Your task to perform on an android device: set an alarm Image 0: 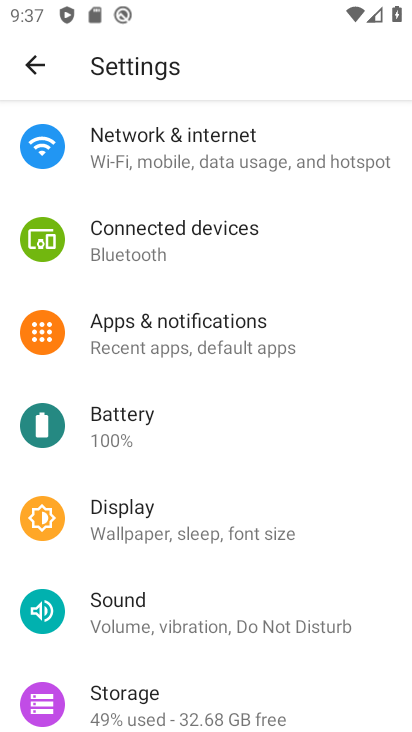
Step 0: press home button
Your task to perform on an android device: set an alarm Image 1: 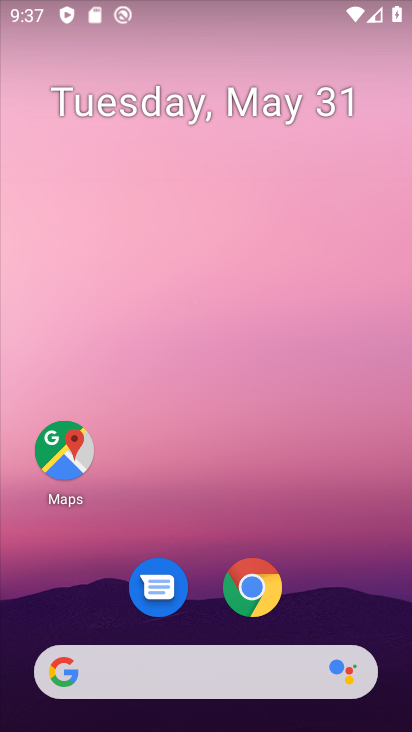
Step 1: drag from (382, 587) to (381, 285)
Your task to perform on an android device: set an alarm Image 2: 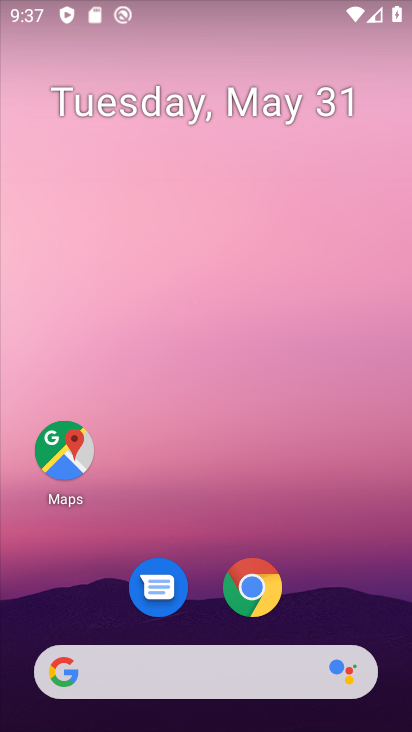
Step 2: drag from (386, 590) to (389, 223)
Your task to perform on an android device: set an alarm Image 3: 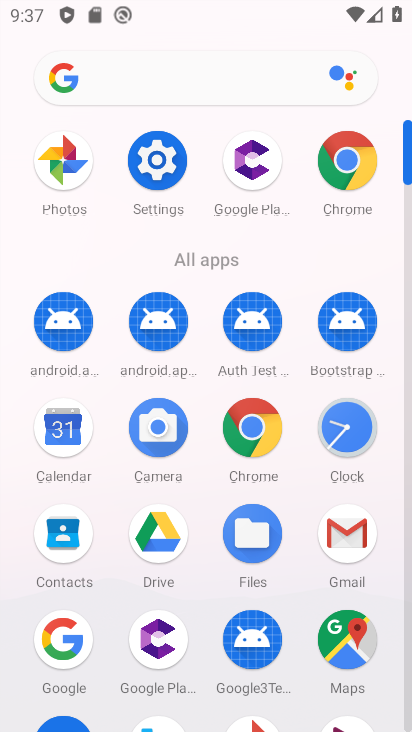
Step 3: click (358, 441)
Your task to perform on an android device: set an alarm Image 4: 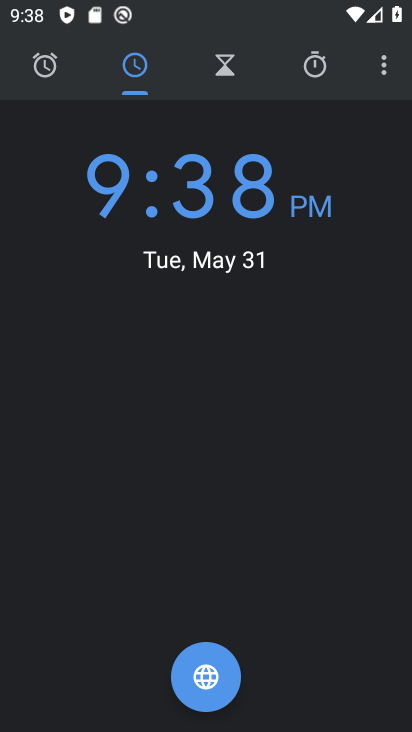
Step 4: click (52, 80)
Your task to perform on an android device: set an alarm Image 5: 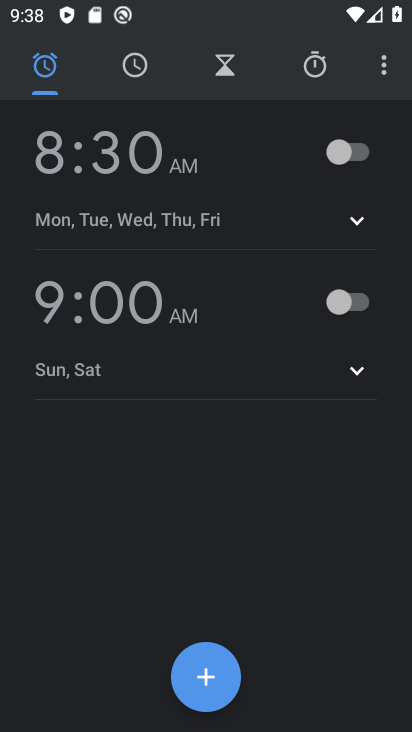
Step 5: click (214, 673)
Your task to perform on an android device: set an alarm Image 6: 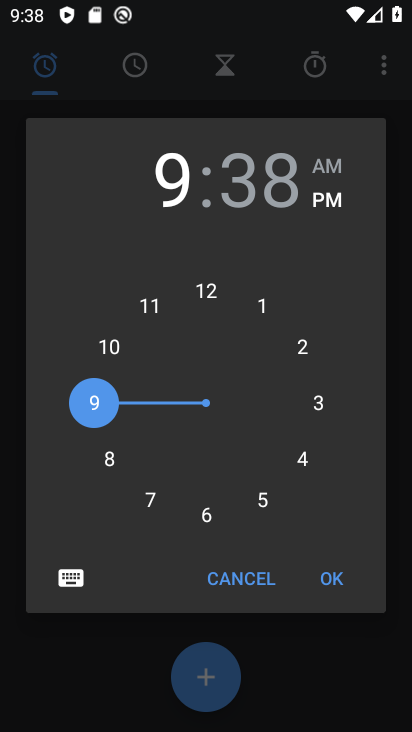
Step 6: click (224, 514)
Your task to perform on an android device: set an alarm Image 7: 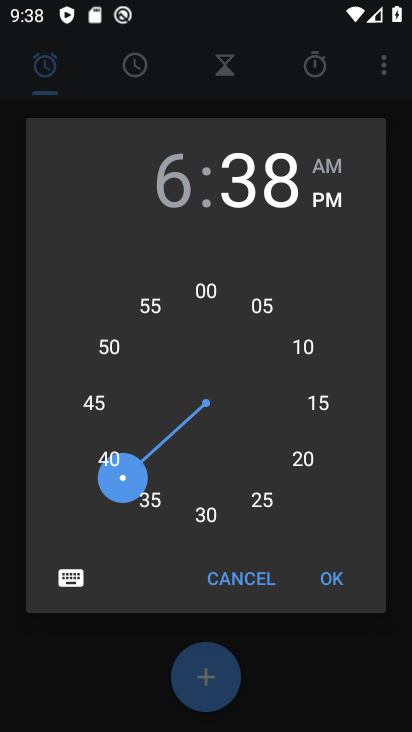
Step 7: click (213, 295)
Your task to perform on an android device: set an alarm Image 8: 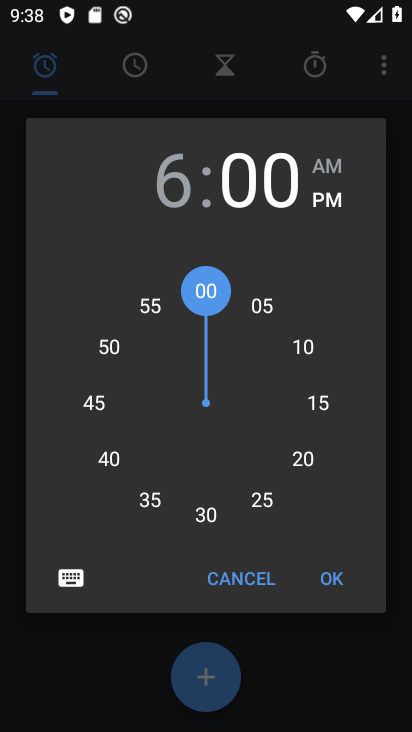
Step 8: click (342, 578)
Your task to perform on an android device: set an alarm Image 9: 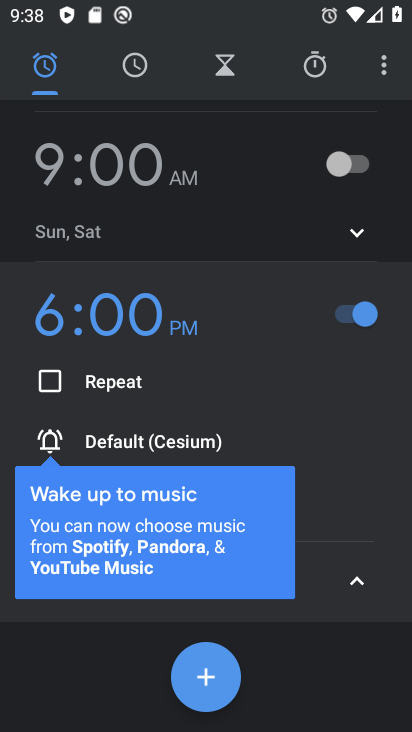
Step 9: task complete